Your task to perform on an android device: Search for "rayovac triple a" on amazon.com, select the first entry, and add it to the cart. Image 0: 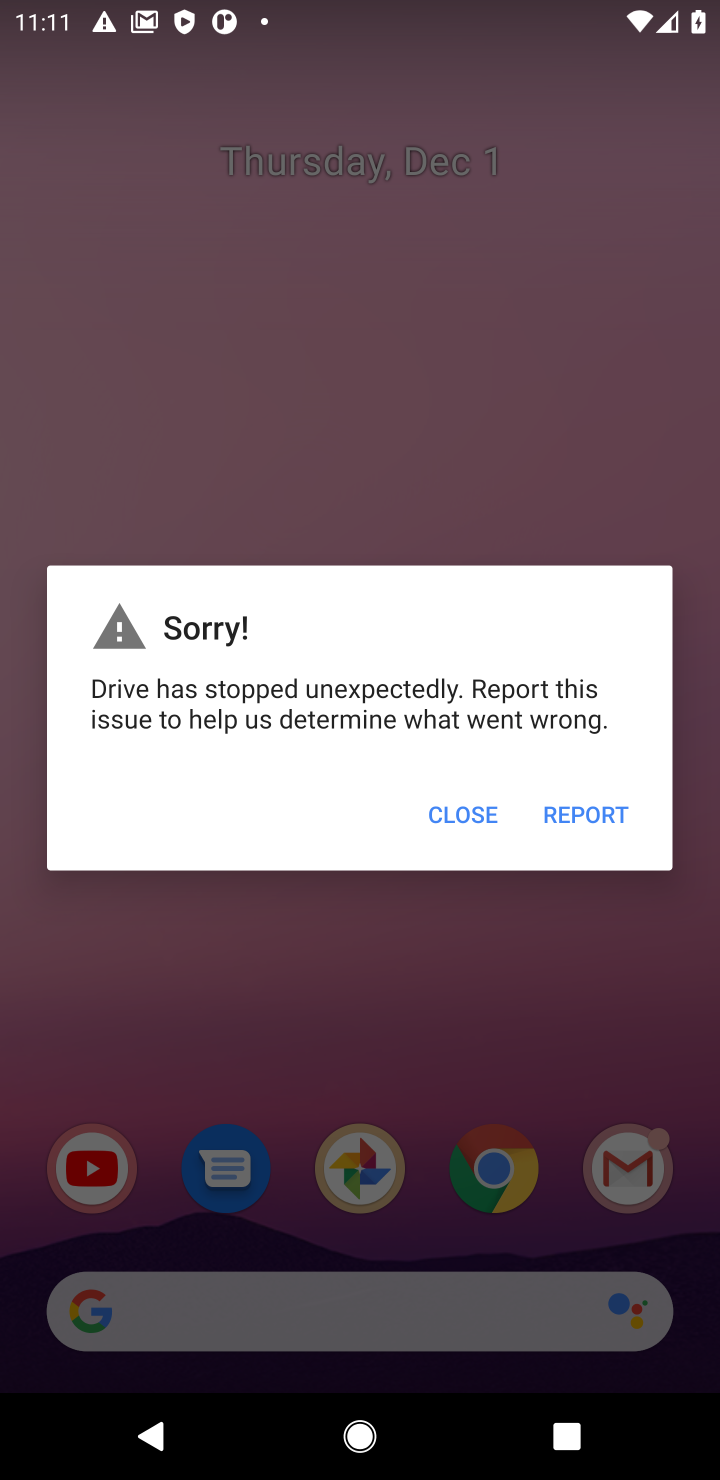
Step 0: press home button
Your task to perform on an android device: Search for "rayovac triple a" on amazon.com, select the first entry, and add it to the cart. Image 1: 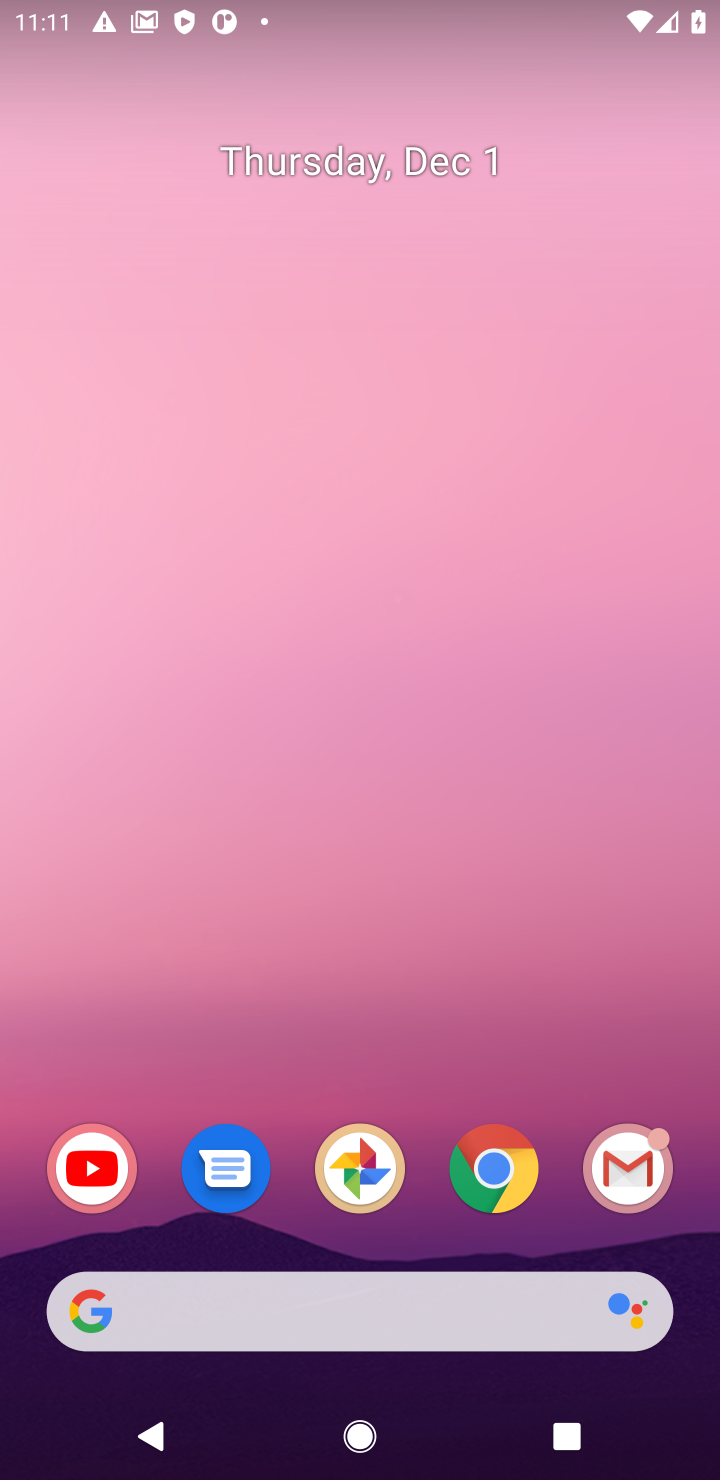
Step 1: click (508, 1172)
Your task to perform on an android device: Search for "rayovac triple a" on amazon.com, select the first entry, and add it to the cart. Image 2: 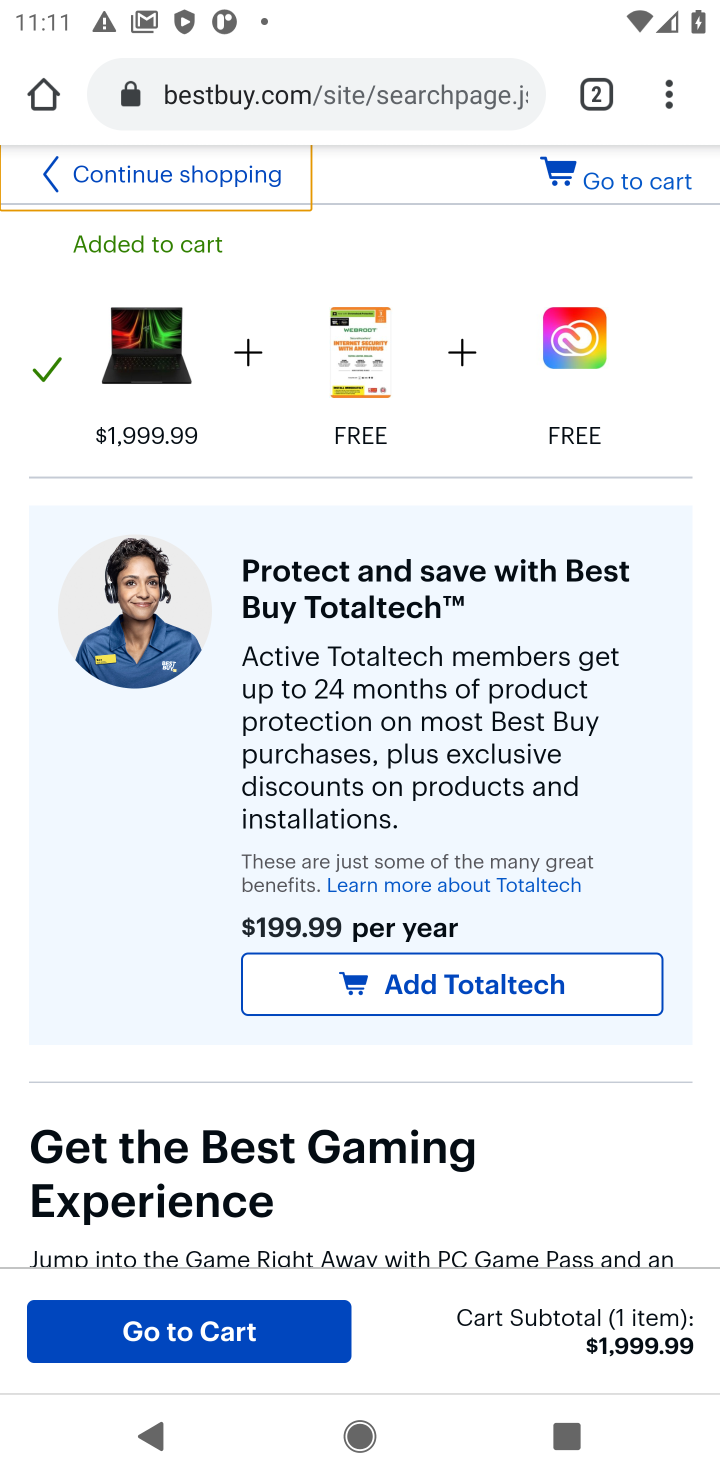
Step 2: click (308, 105)
Your task to perform on an android device: Search for "rayovac triple a" on amazon.com, select the first entry, and add it to the cart. Image 3: 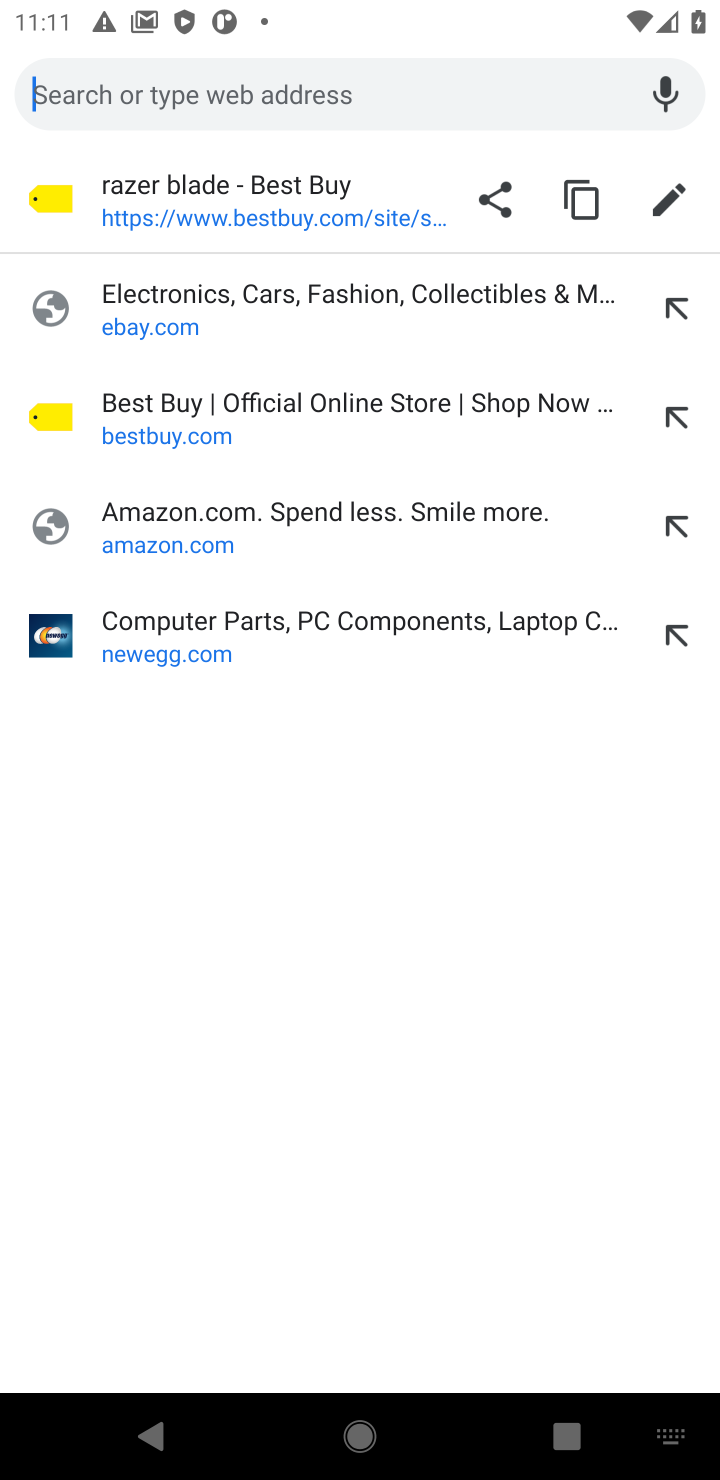
Step 3: click (139, 532)
Your task to perform on an android device: Search for "rayovac triple a" on amazon.com, select the first entry, and add it to the cart. Image 4: 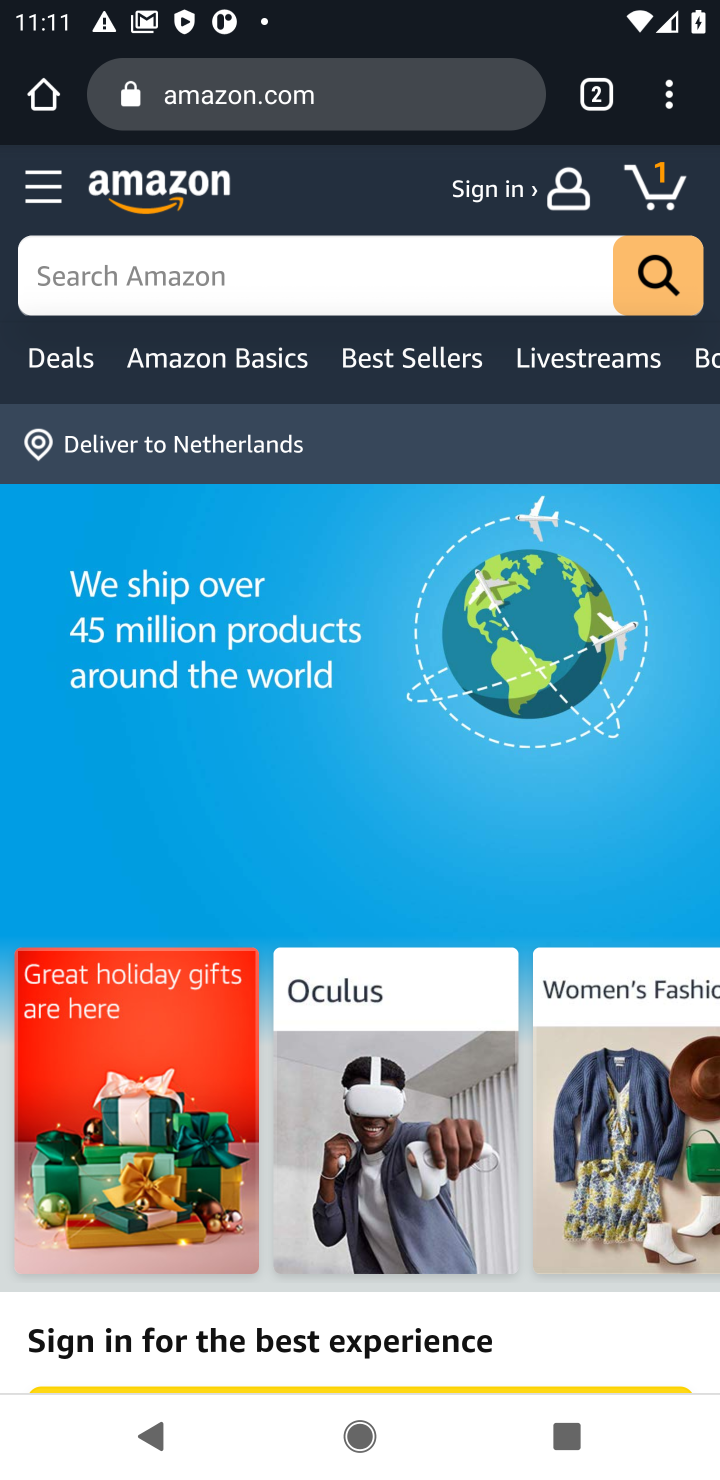
Step 4: click (182, 275)
Your task to perform on an android device: Search for "rayovac triple a" on amazon.com, select the first entry, and add it to the cart. Image 5: 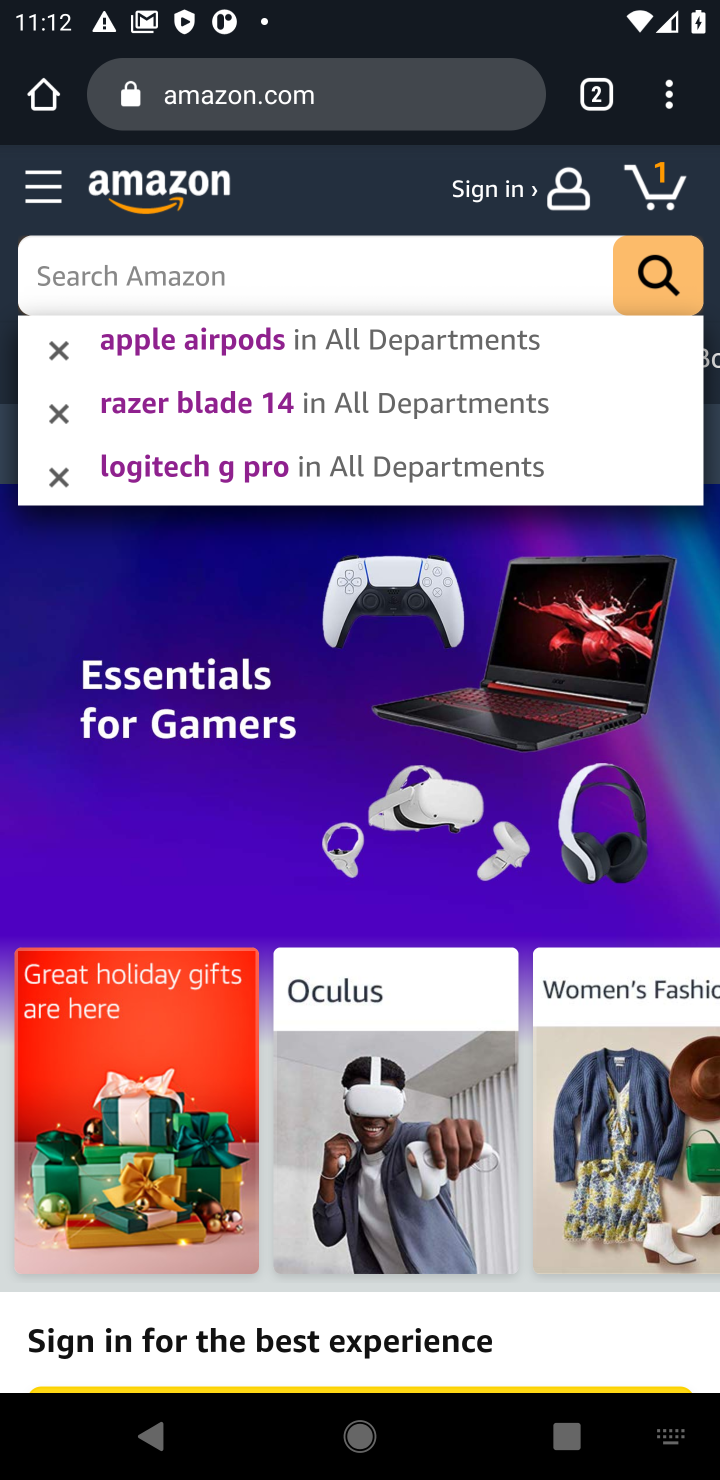
Step 5: type "rayovac triple a"
Your task to perform on an android device: Search for "rayovac triple a" on amazon.com, select the first entry, and add it to the cart. Image 6: 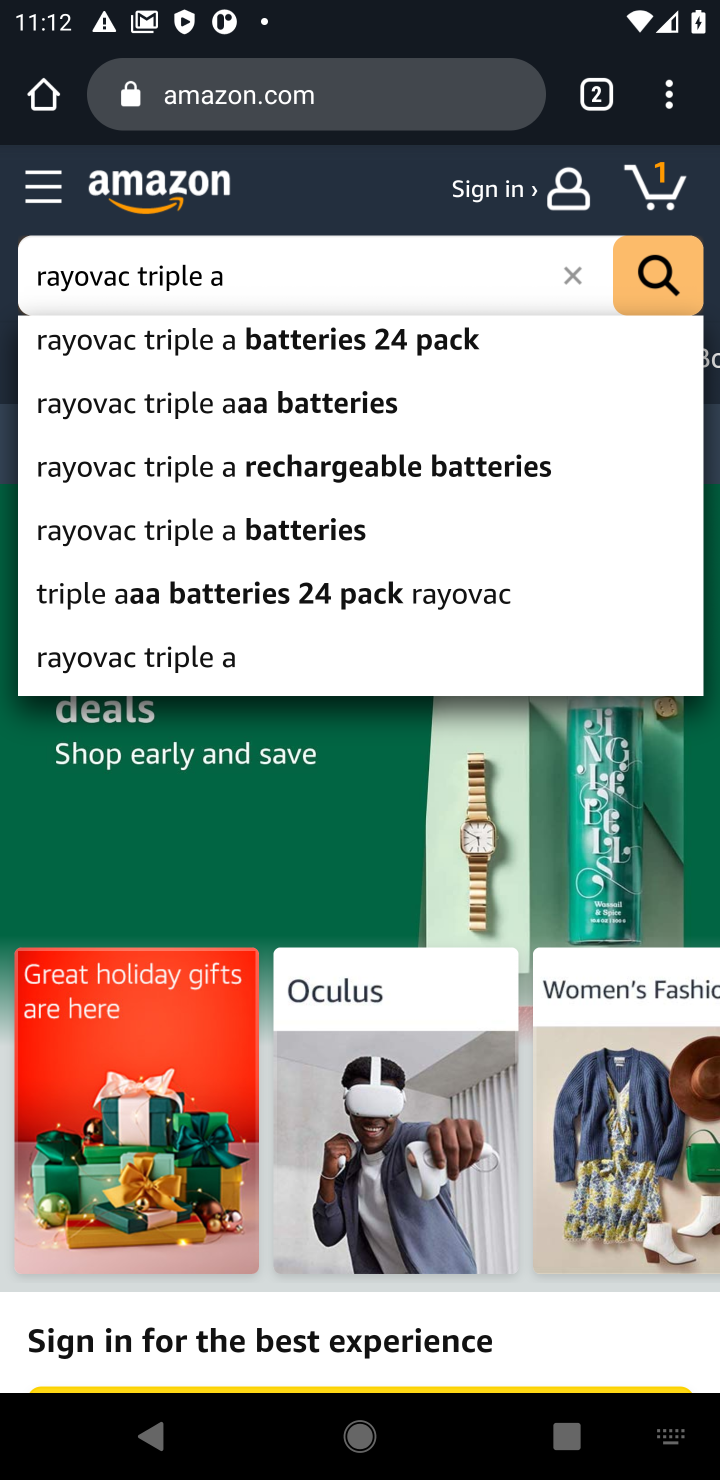
Step 6: click (211, 417)
Your task to perform on an android device: Search for "rayovac triple a" on amazon.com, select the first entry, and add it to the cart. Image 7: 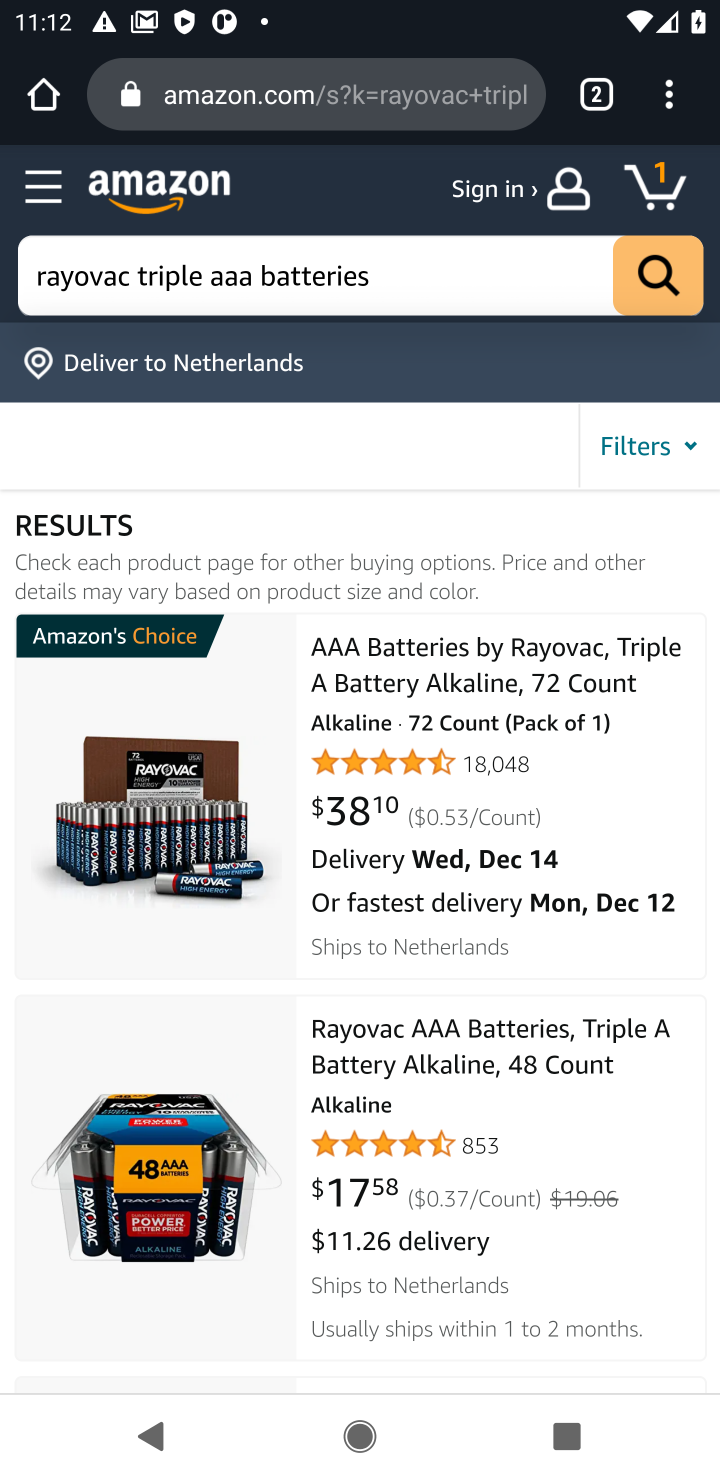
Step 7: click (452, 711)
Your task to perform on an android device: Search for "rayovac triple a" on amazon.com, select the first entry, and add it to the cart. Image 8: 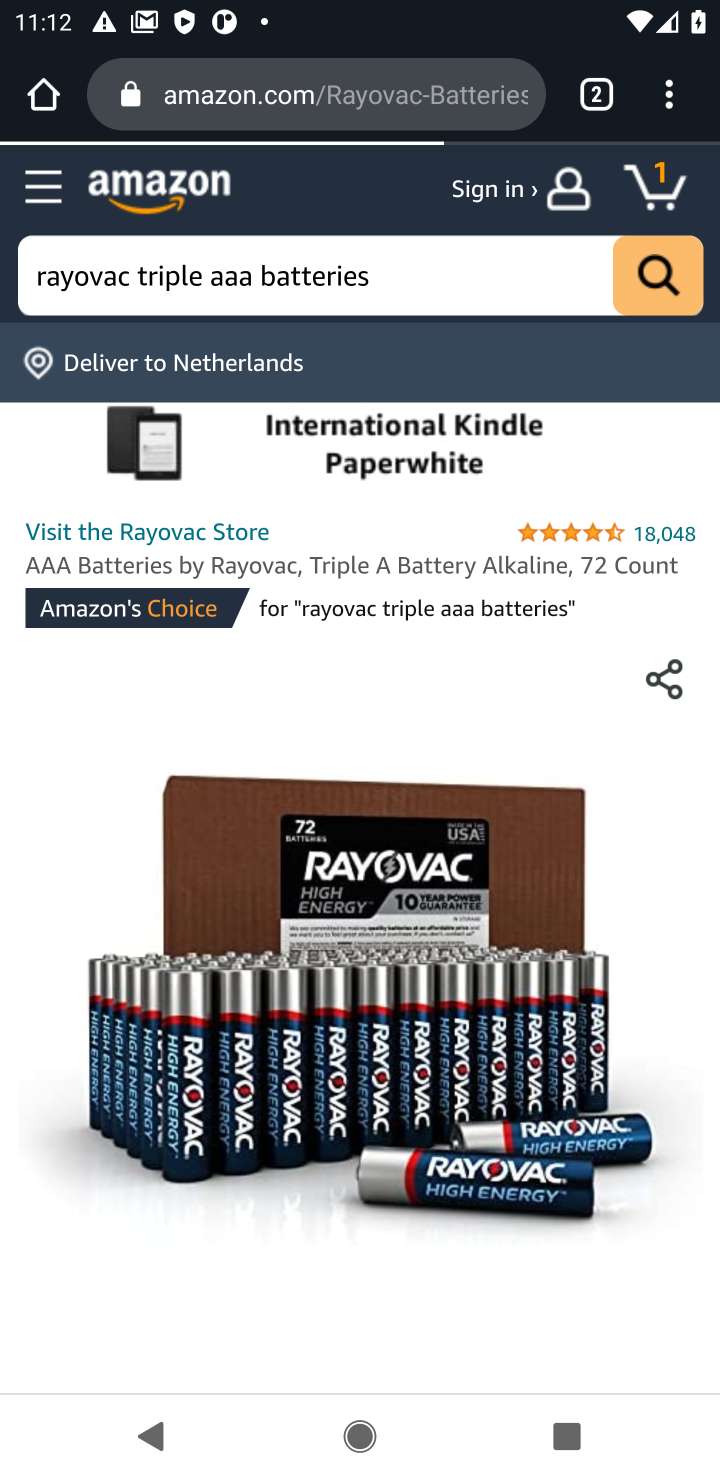
Step 8: drag from (391, 1000) to (367, 565)
Your task to perform on an android device: Search for "rayovac triple a" on amazon.com, select the first entry, and add it to the cart. Image 9: 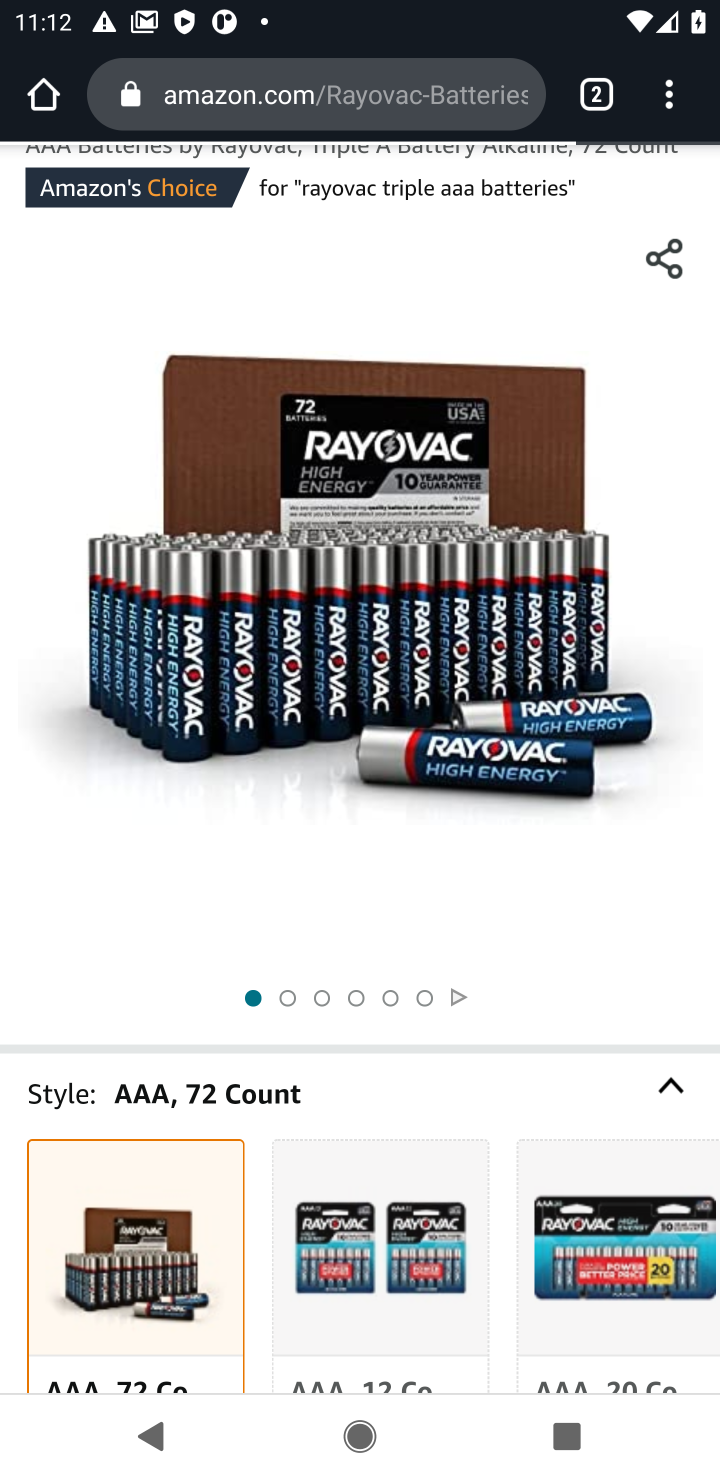
Step 9: drag from (389, 819) to (348, 382)
Your task to perform on an android device: Search for "rayovac triple a" on amazon.com, select the first entry, and add it to the cart. Image 10: 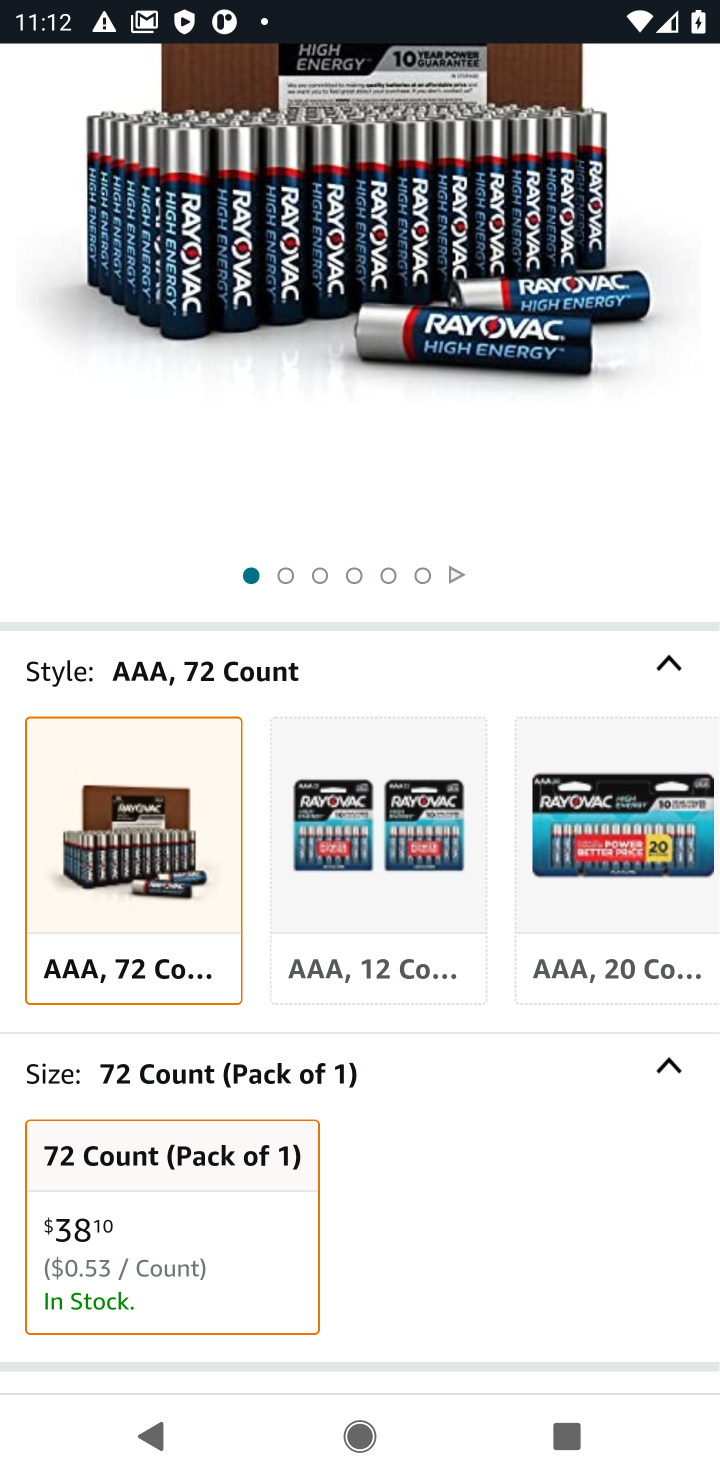
Step 10: drag from (428, 1209) to (438, 579)
Your task to perform on an android device: Search for "rayovac triple a" on amazon.com, select the first entry, and add it to the cart. Image 11: 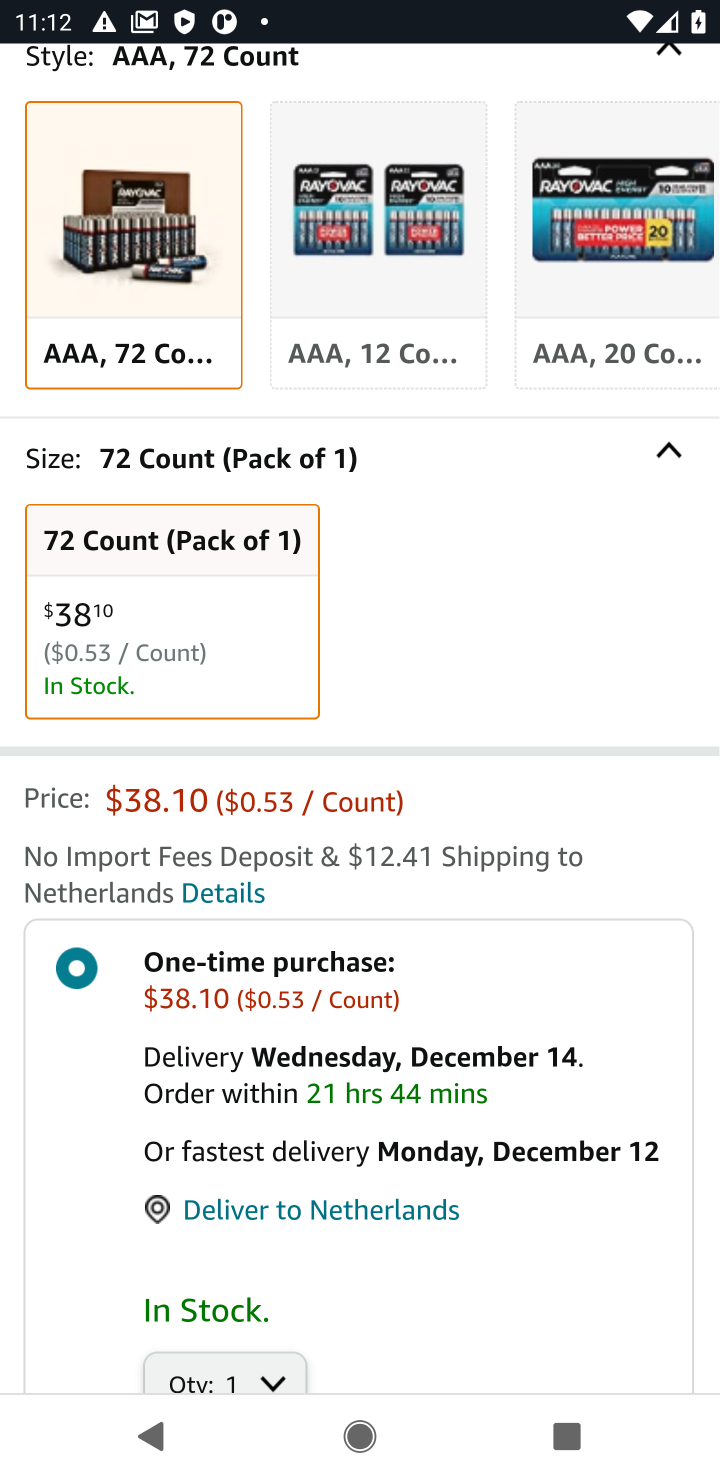
Step 11: drag from (434, 994) to (421, 392)
Your task to perform on an android device: Search for "rayovac triple a" on amazon.com, select the first entry, and add it to the cart. Image 12: 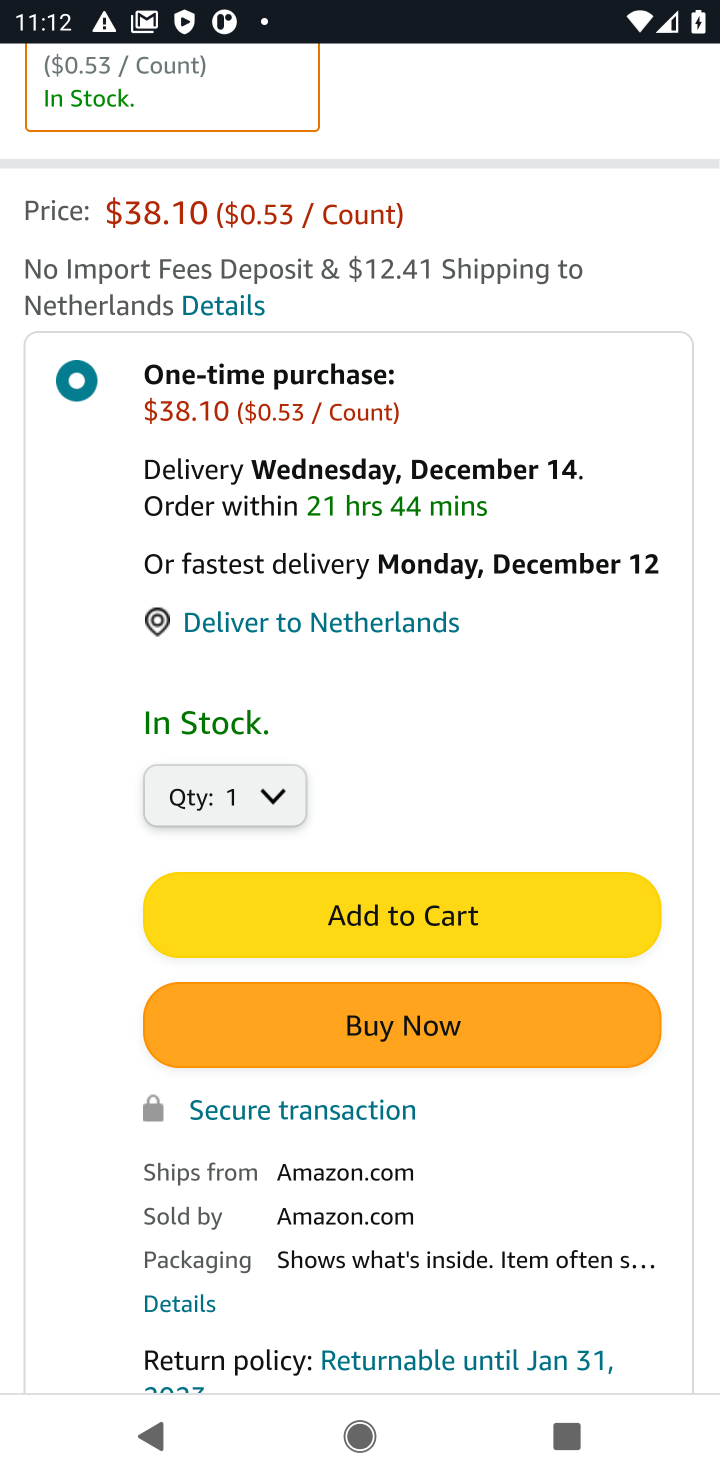
Step 12: click (443, 910)
Your task to perform on an android device: Search for "rayovac triple a" on amazon.com, select the first entry, and add it to the cart. Image 13: 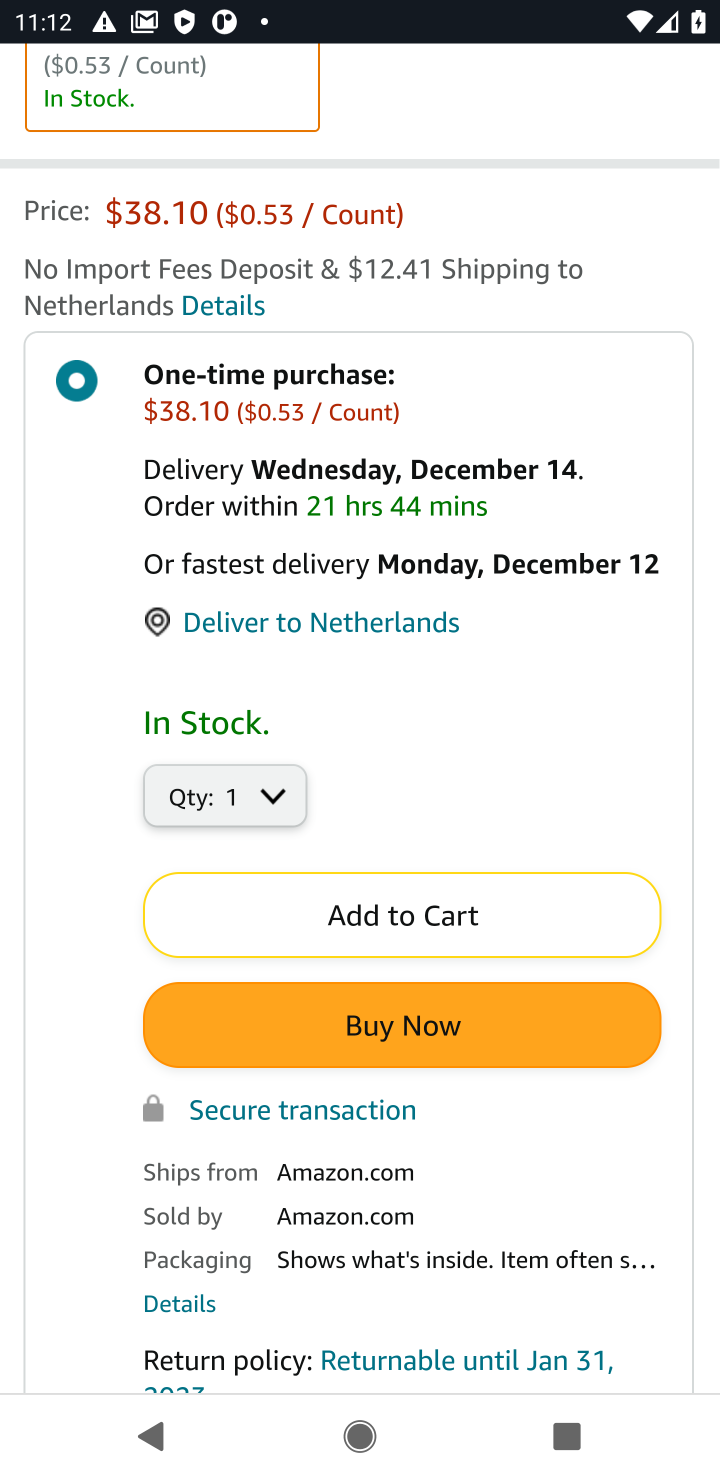
Step 13: click (412, 919)
Your task to perform on an android device: Search for "rayovac triple a" on amazon.com, select the first entry, and add it to the cart. Image 14: 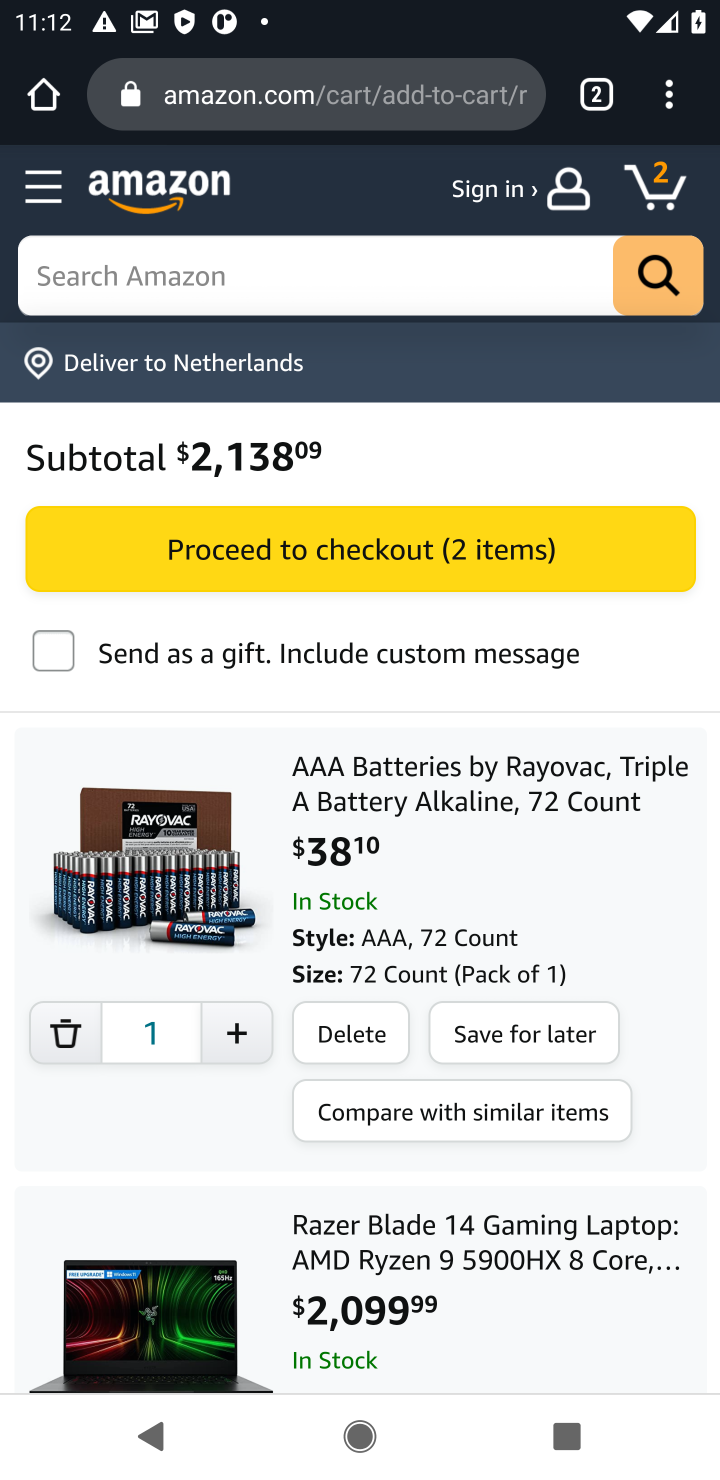
Step 14: task complete